Your task to perform on an android device: change the clock style Image 0: 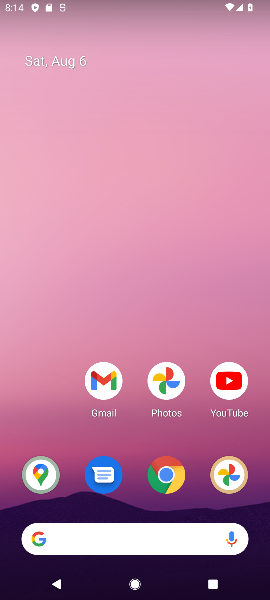
Step 0: drag from (131, 436) to (138, 198)
Your task to perform on an android device: change the clock style Image 1: 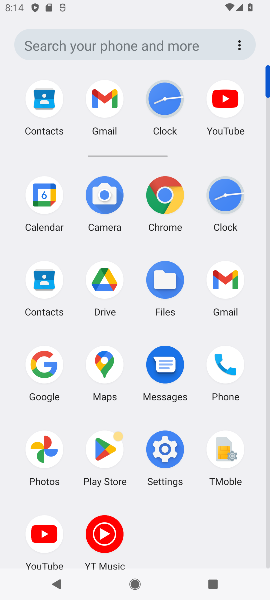
Step 1: click (214, 206)
Your task to perform on an android device: change the clock style Image 2: 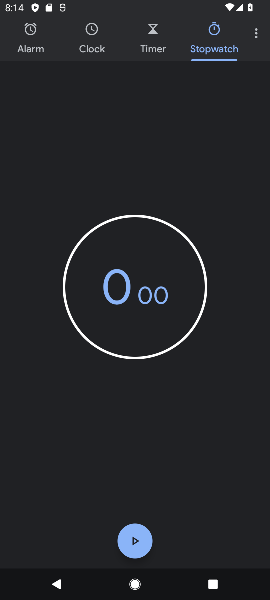
Step 2: click (253, 34)
Your task to perform on an android device: change the clock style Image 3: 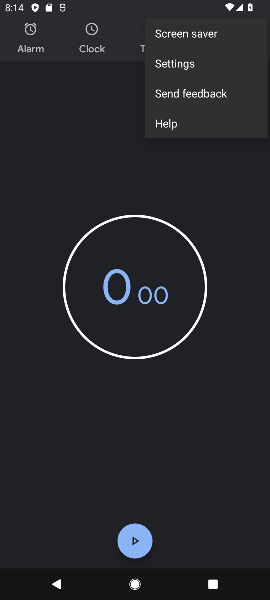
Step 3: click (199, 60)
Your task to perform on an android device: change the clock style Image 4: 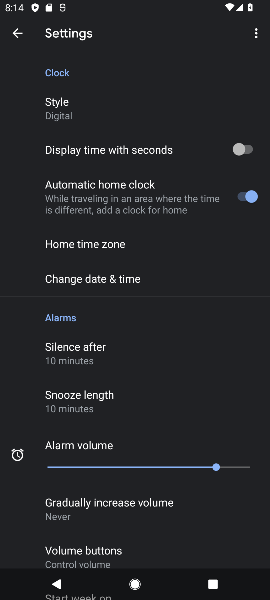
Step 4: click (83, 105)
Your task to perform on an android device: change the clock style Image 5: 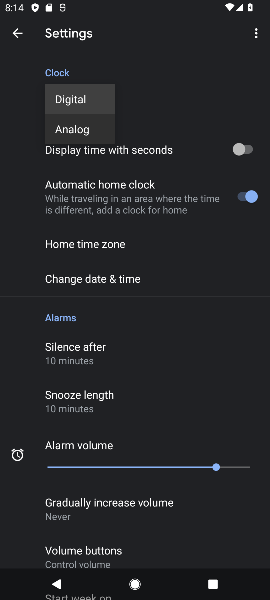
Step 5: click (78, 131)
Your task to perform on an android device: change the clock style Image 6: 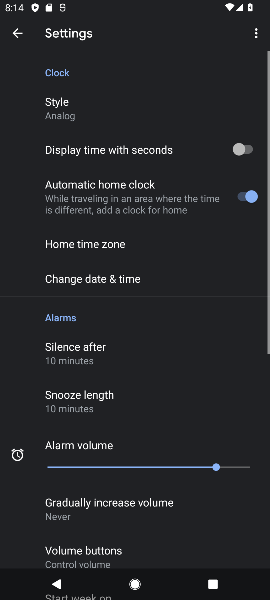
Step 6: task complete